Your task to perform on an android device: Find coffee shops on Maps Image 0: 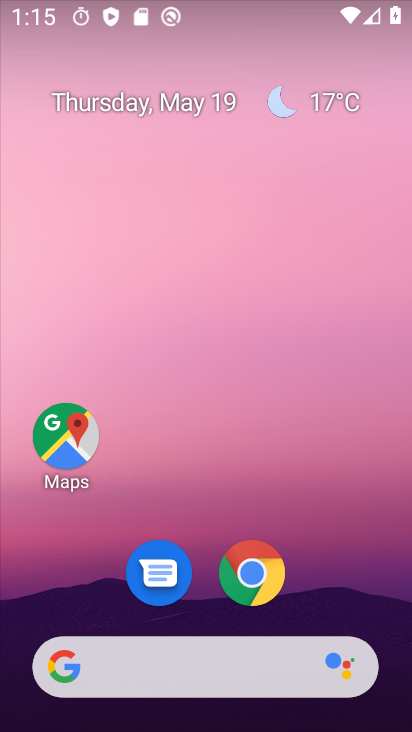
Step 0: click (64, 437)
Your task to perform on an android device: Find coffee shops on Maps Image 1: 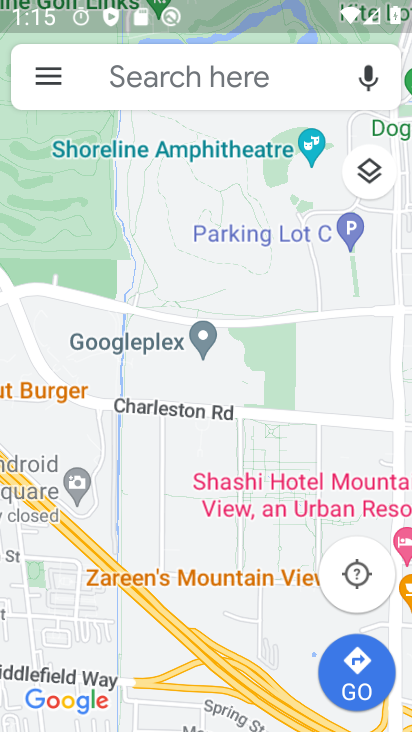
Step 1: click (185, 79)
Your task to perform on an android device: Find coffee shops on Maps Image 2: 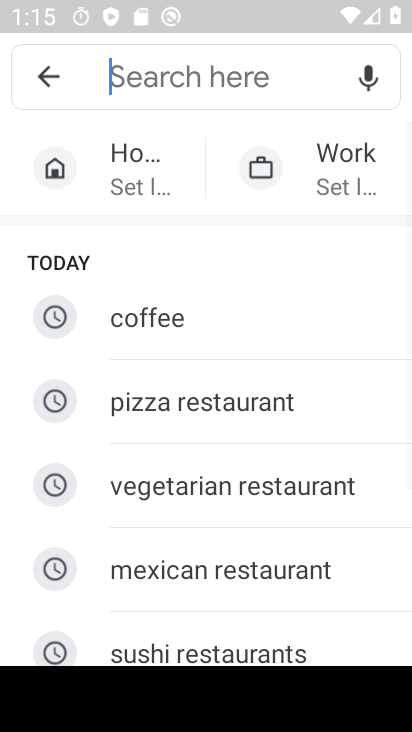
Step 2: click (152, 319)
Your task to perform on an android device: Find coffee shops on Maps Image 3: 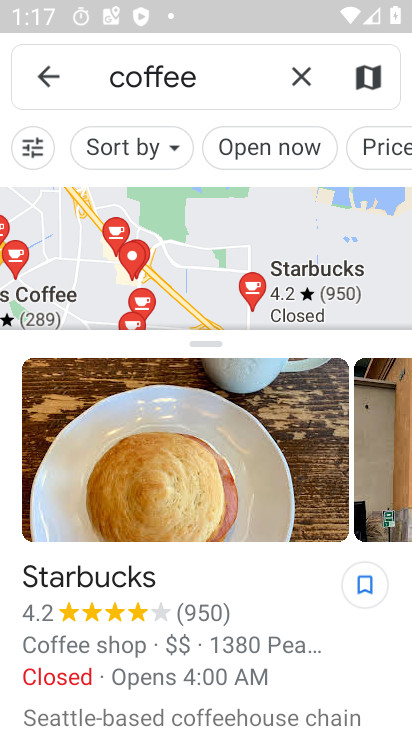
Step 3: task complete